Your task to perform on an android device: find snoozed emails in the gmail app Image 0: 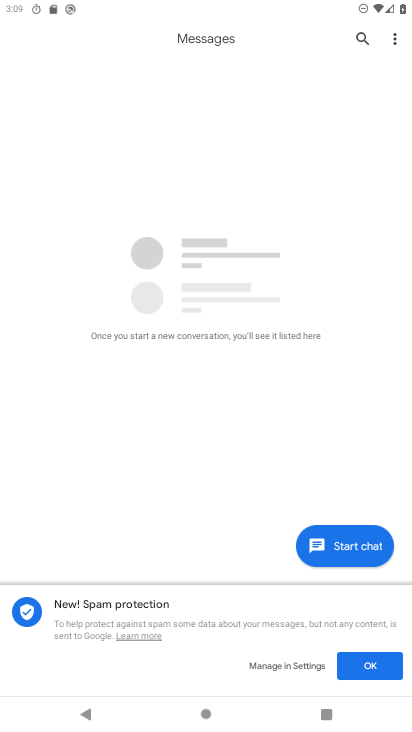
Step 0: press home button
Your task to perform on an android device: find snoozed emails in the gmail app Image 1: 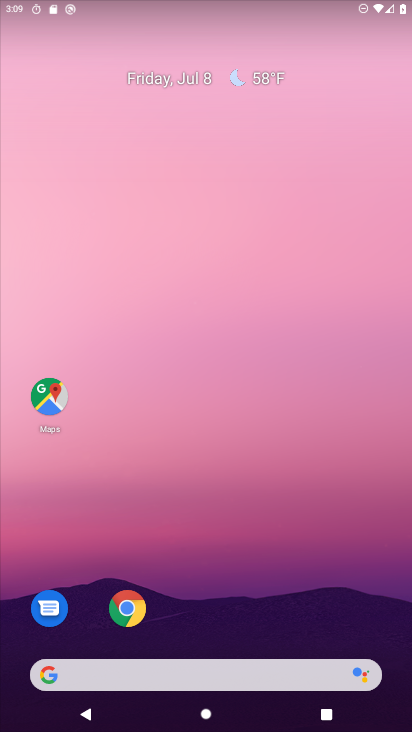
Step 1: drag from (238, 709) to (185, 81)
Your task to perform on an android device: find snoozed emails in the gmail app Image 2: 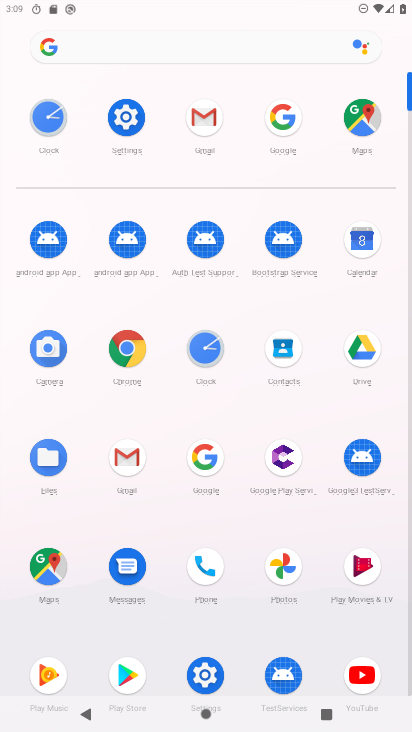
Step 2: click (120, 456)
Your task to perform on an android device: find snoozed emails in the gmail app Image 3: 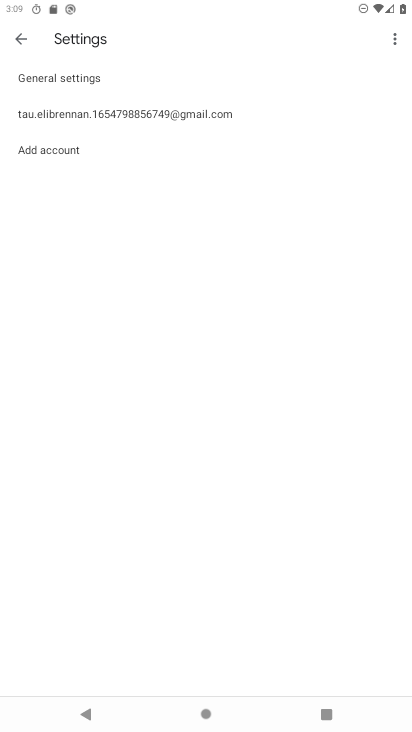
Step 3: click (24, 37)
Your task to perform on an android device: find snoozed emails in the gmail app Image 4: 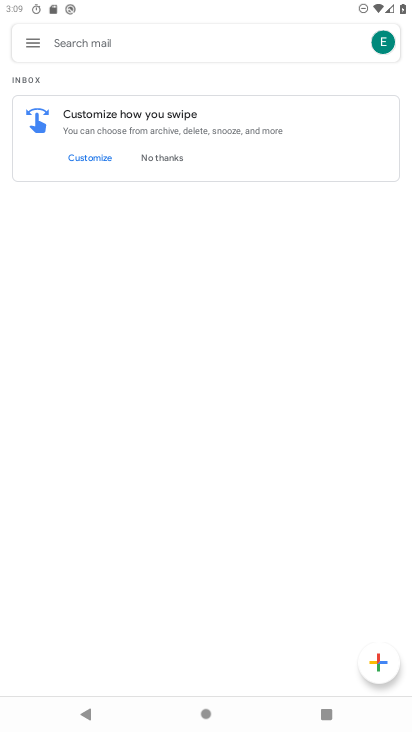
Step 4: click (26, 41)
Your task to perform on an android device: find snoozed emails in the gmail app Image 5: 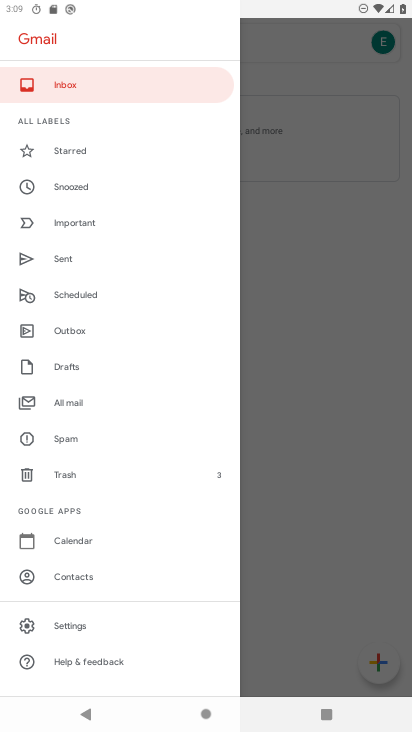
Step 5: click (68, 186)
Your task to perform on an android device: find snoozed emails in the gmail app Image 6: 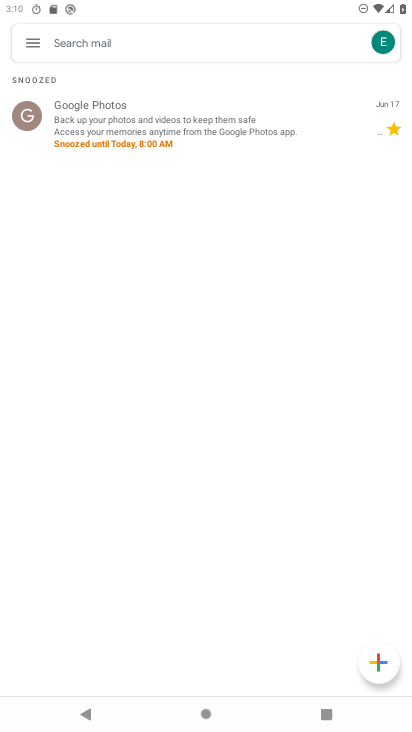
Step 6: task complete